Your task to perform on an android device: toggle wifi Image 0: 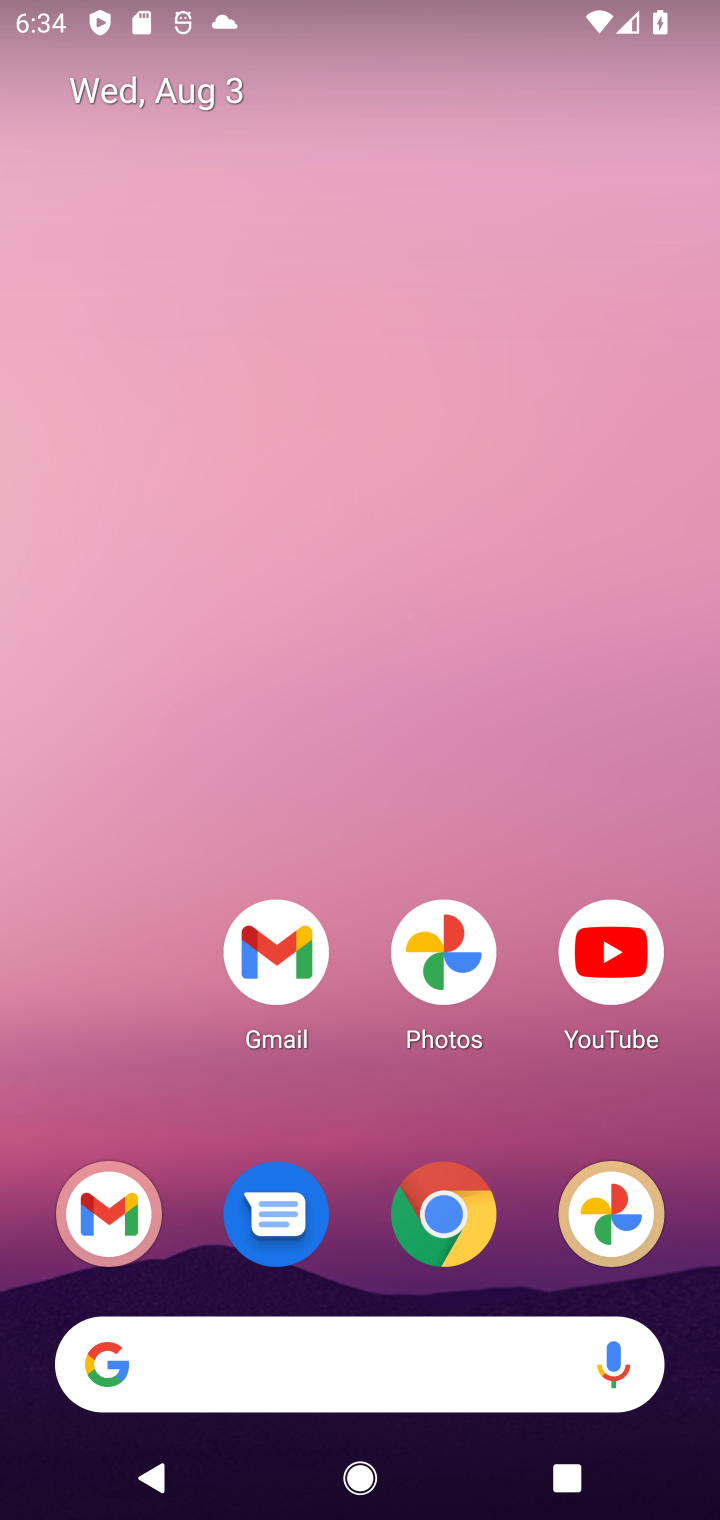
Step 0: drag from (113, 1086) to (250, 45)
Your task to perform on an android device: toggle wifi Image 1: 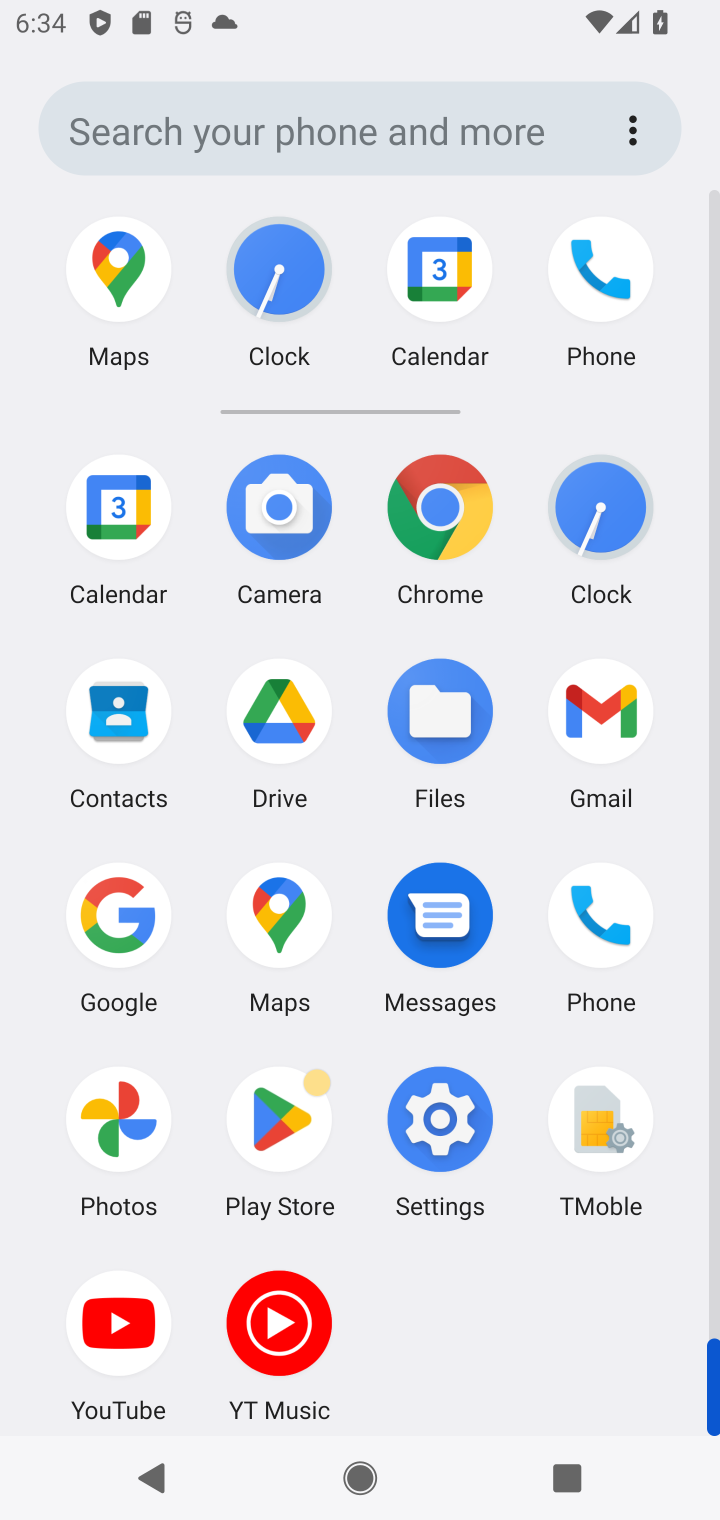
Step 1: click (433, 1125)
Your task to perform on an android device: toggle wifi Image 2: 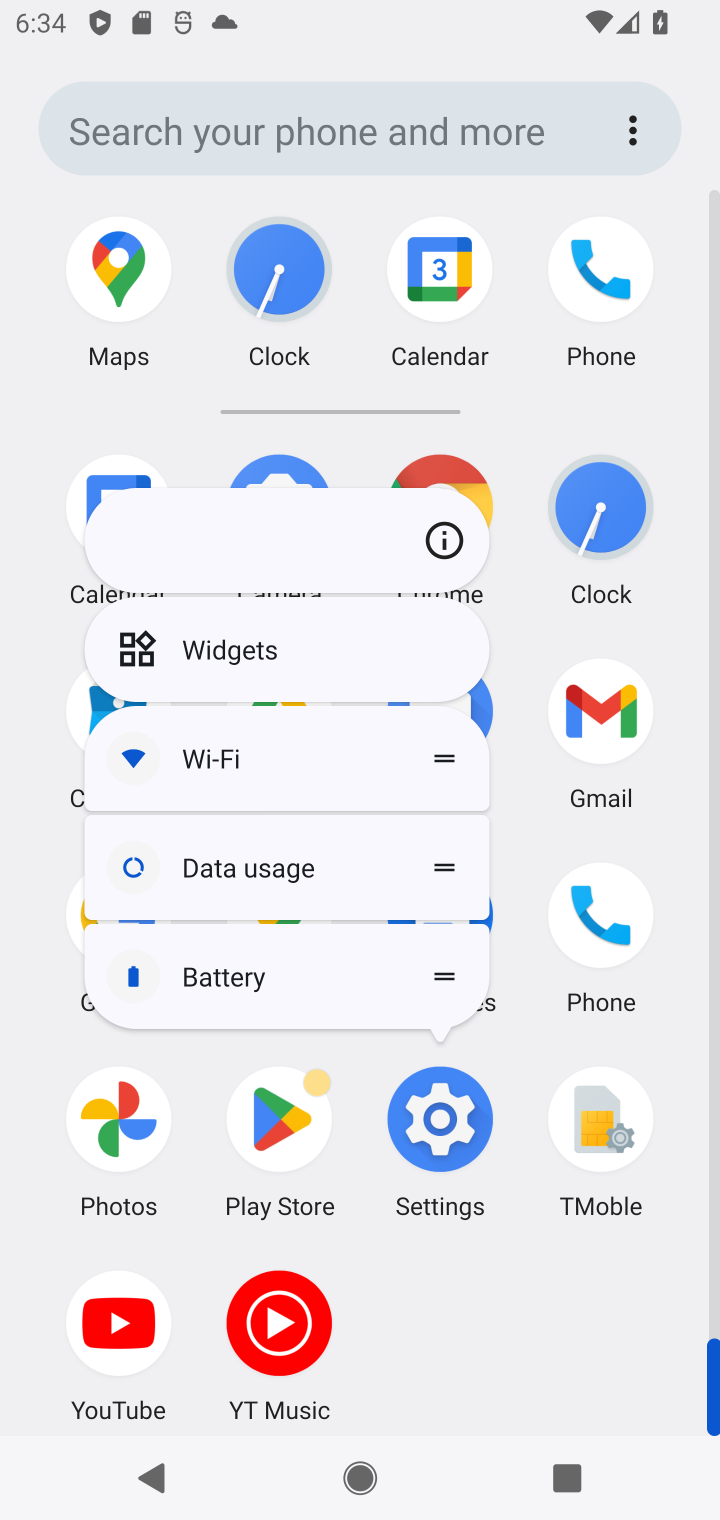
Step 2: click (433, 1121)
Your task to perform on an android device: toggle wifi Image 3: 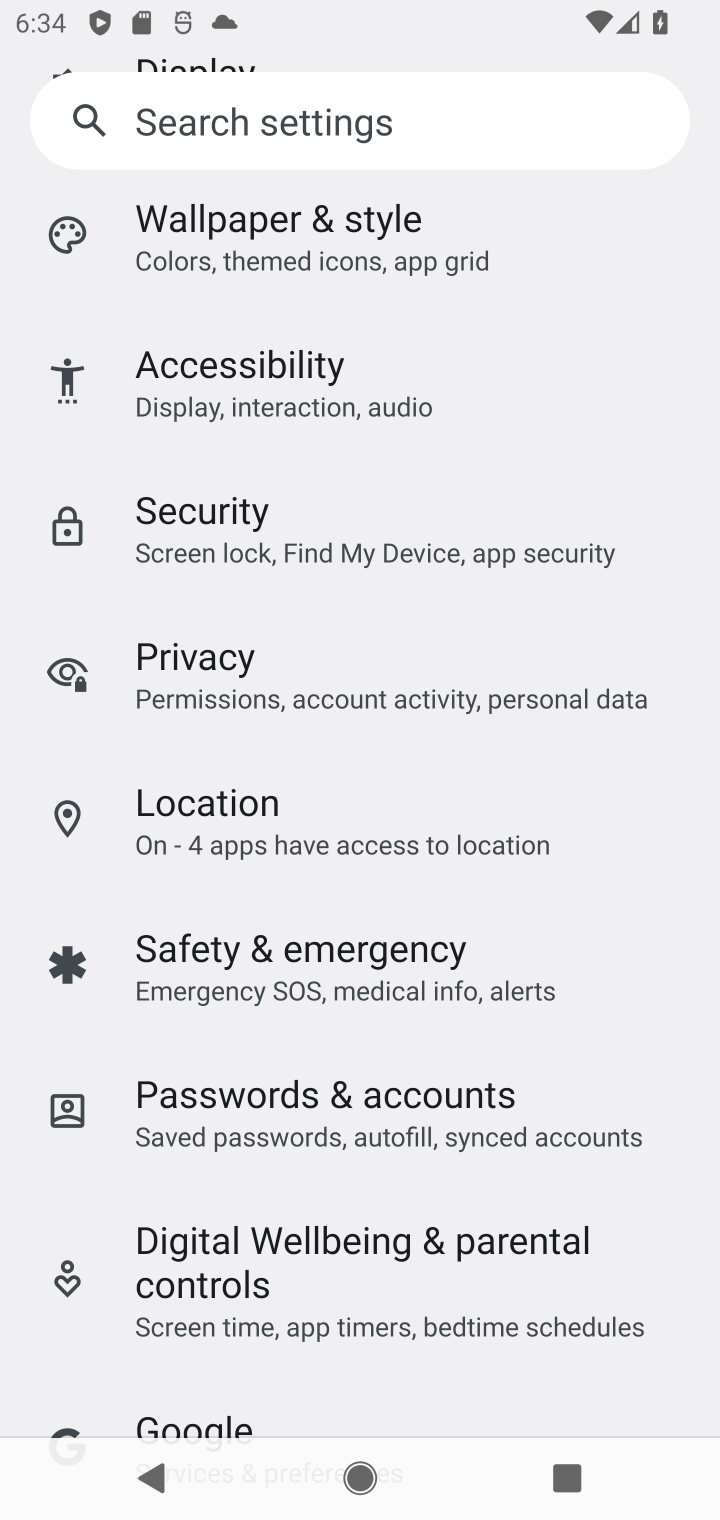
Step 3: drag from (484, 344) to (506, 1314)
Your task to perform on an android device: toggle wifi Image 4: 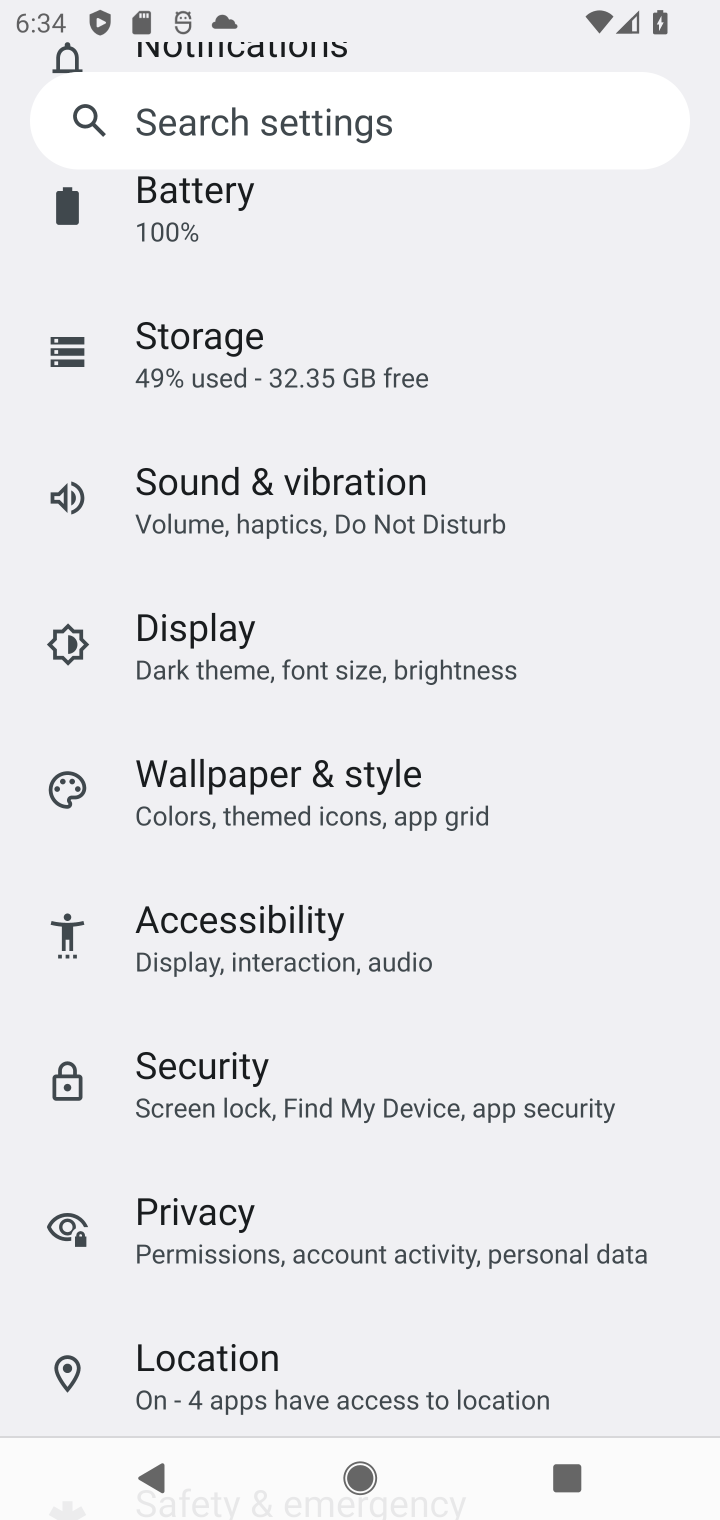
Step 4: drag from (562, 382) to (528, 1494)
Your task to perform on an android device: toggle wifi Image 5: 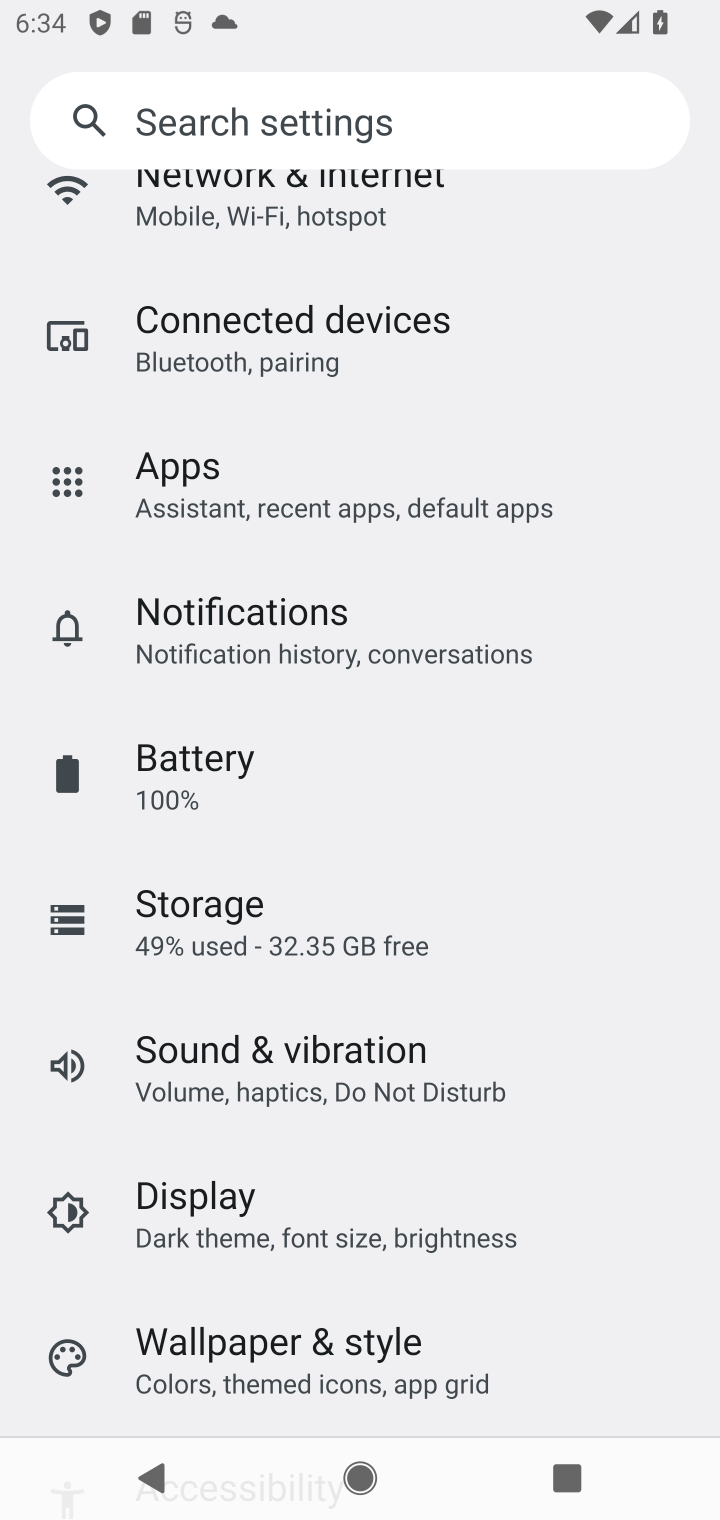
Step 5: drag from (598, 467) to (598, 1485)
Your task to perform on an android device: toggle wifi Image 6: 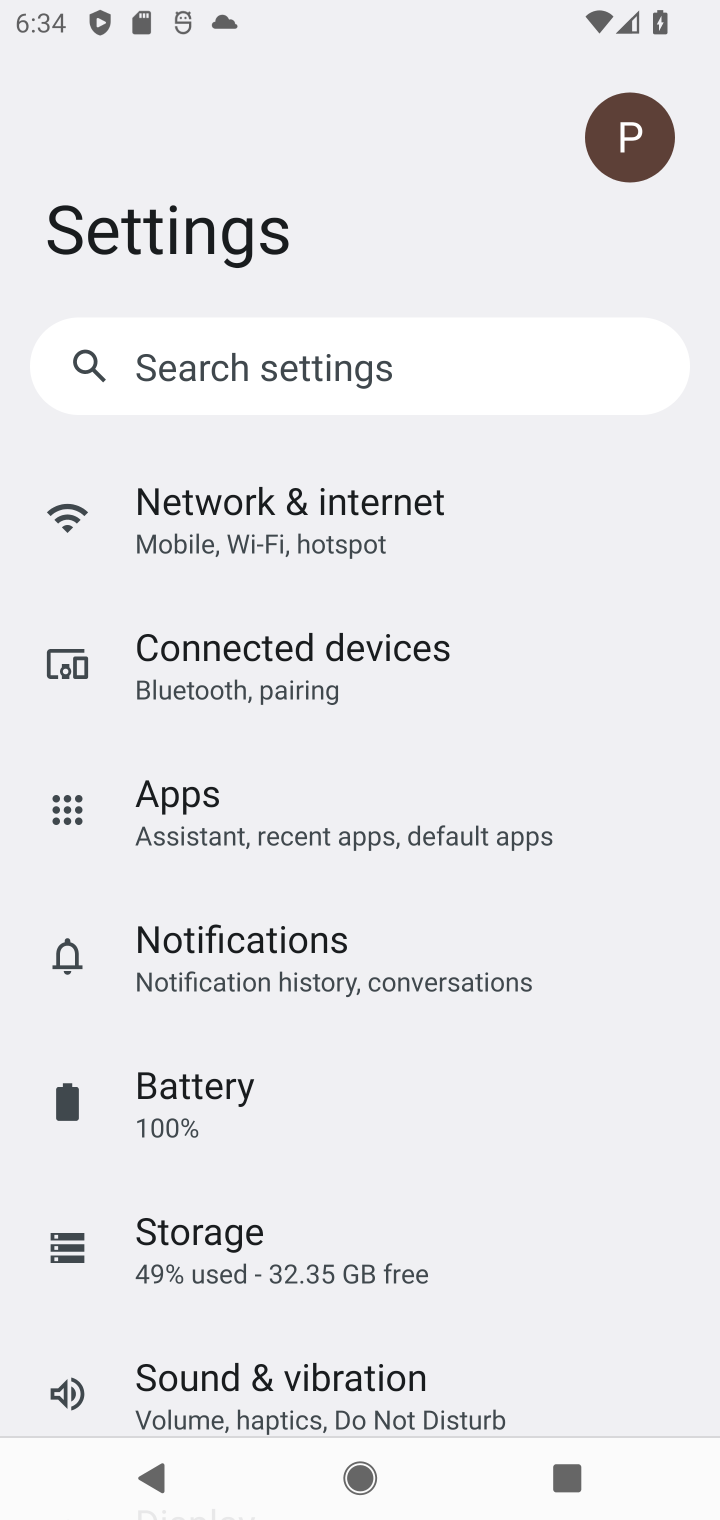
Step 6: click (333, 529)
Your task to perform on an android device: toggle wifi Image 7: 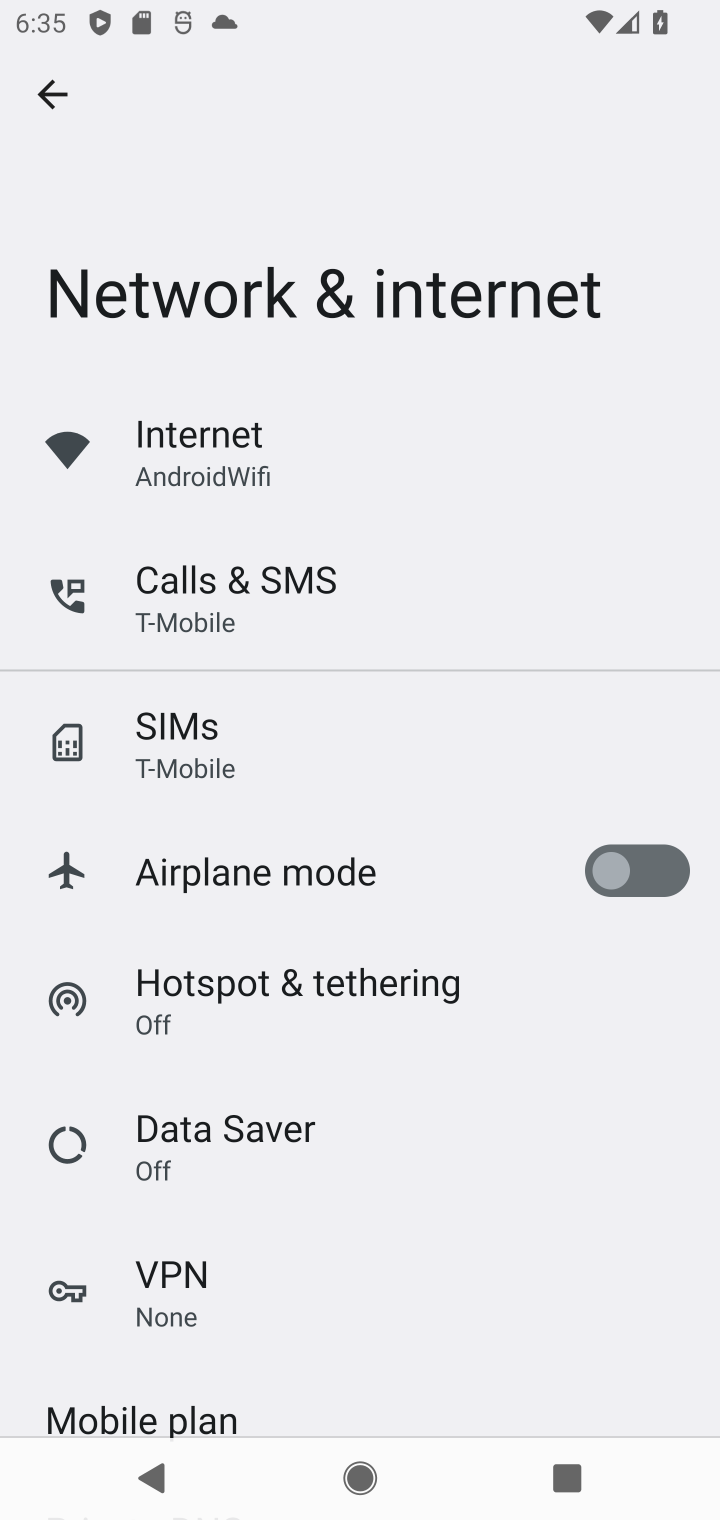
Step 7: click (207, 426)
Your task to perform on an android device: toggle wifi Image 8: 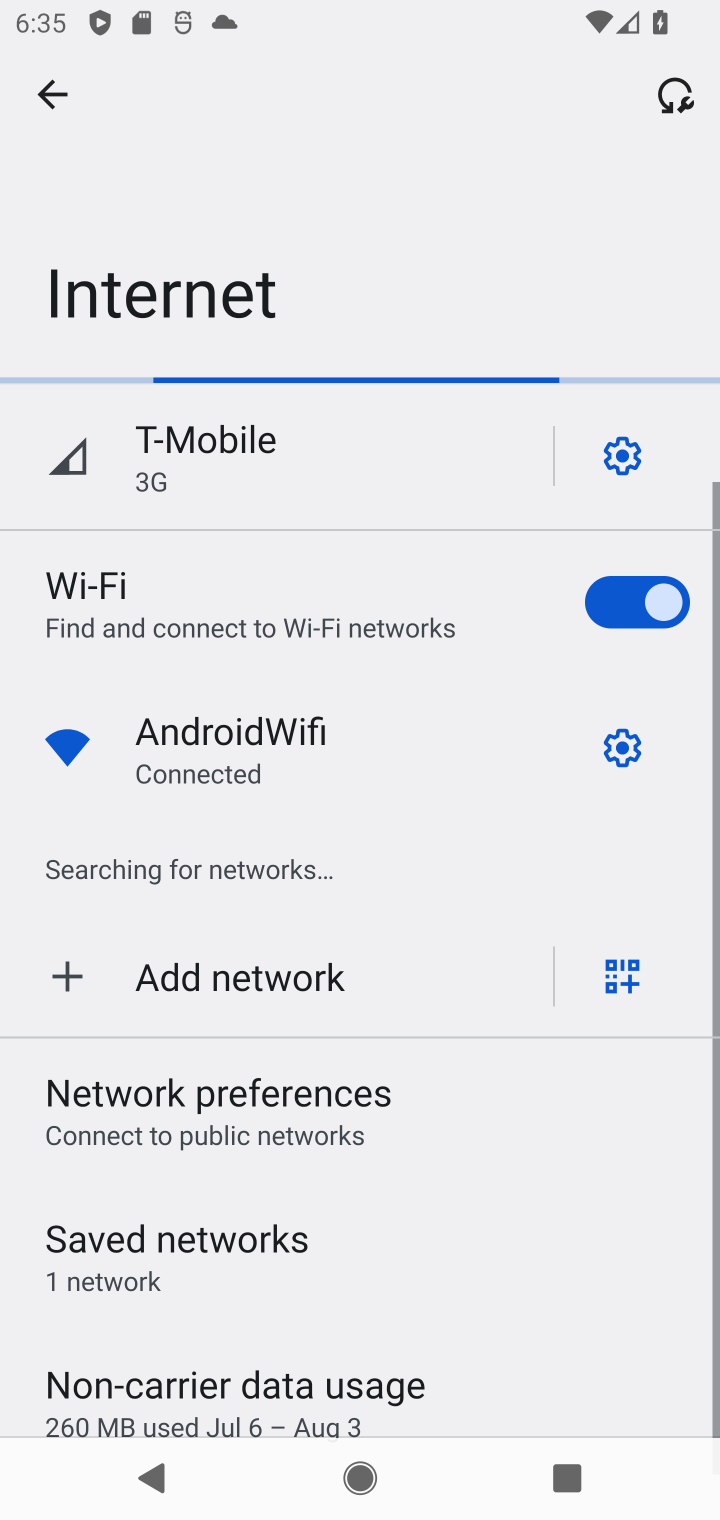
Step 8: click (625, 618)
Your task to perform on an android device: toggle wifi Image 9: 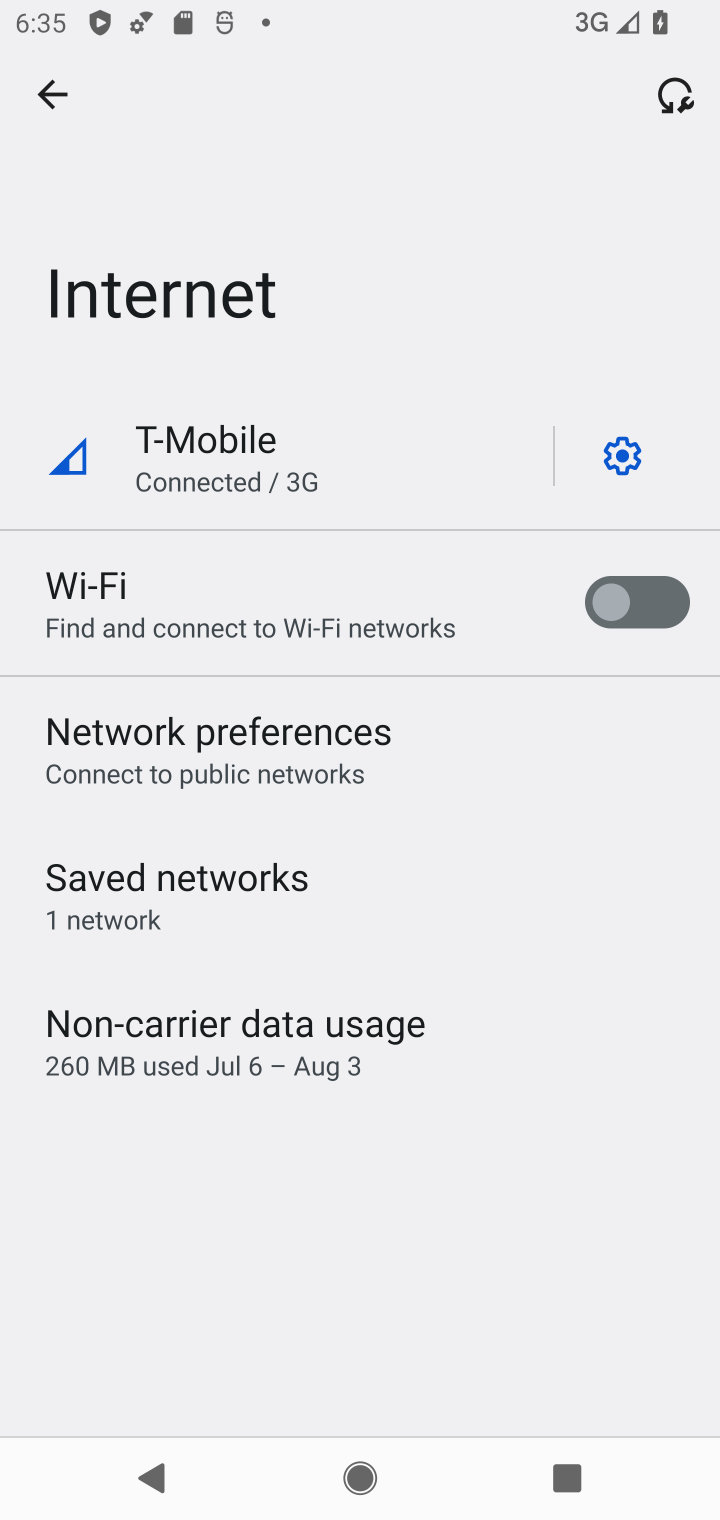
Step 9: task complete